Your task to perform on an android device: toggle notifications settings in the gmail app Image 0: 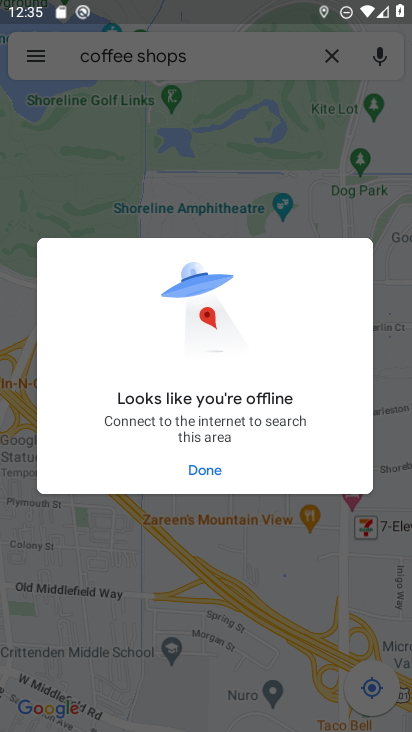
Step 0: press home button
Your task to perform on an android device: toggle notifications settings in the gmail app Image 1: 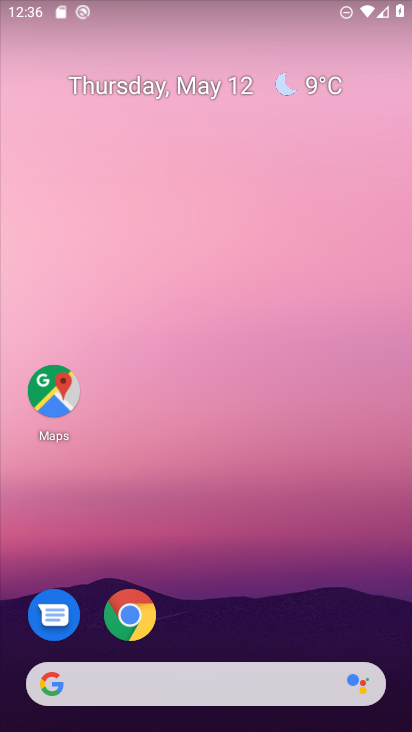
Step 1: drag from (270, 592) to (258, 118)
Your task to perform on an android device: toggle notifications settings in the gmail app Image 2: 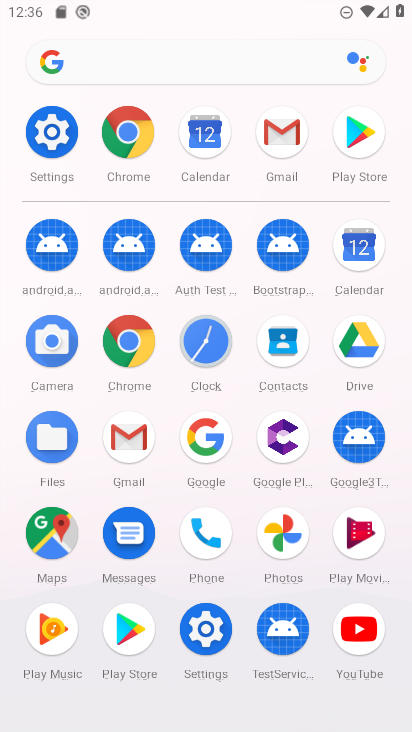
Step 2: click (137, 431)
Your task to perform on an android device: toggle notifications settings in the gmail app Image 3: 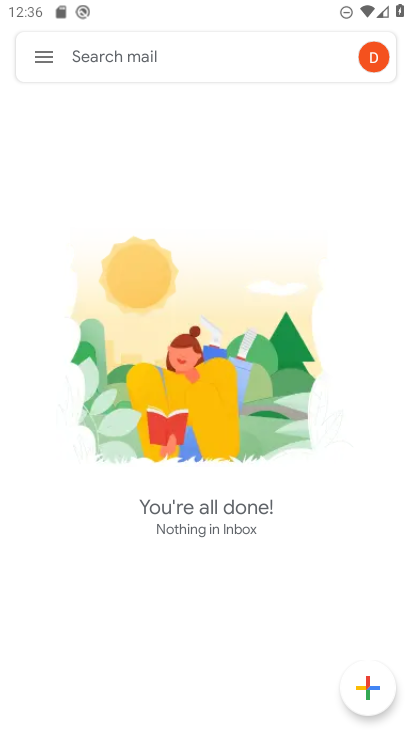
Step 3: click (51, 63)
Your task to perform on an android device: toggle notifications settings in the gmail app Image 4: 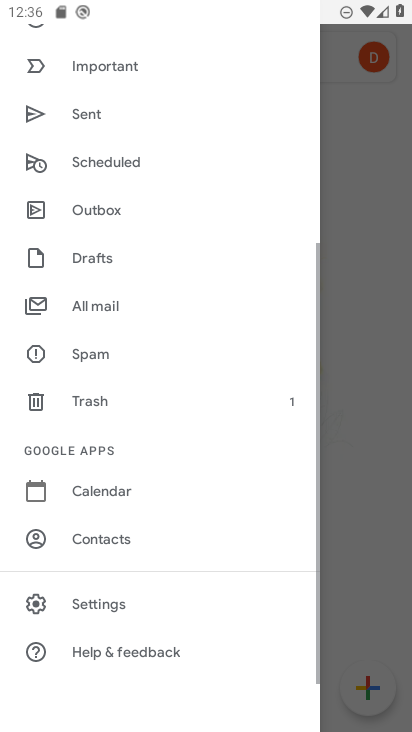
Step 4: click (138, 599)
Your task to perform on an android device: toggle notifications settings in the gmail app Image 5: 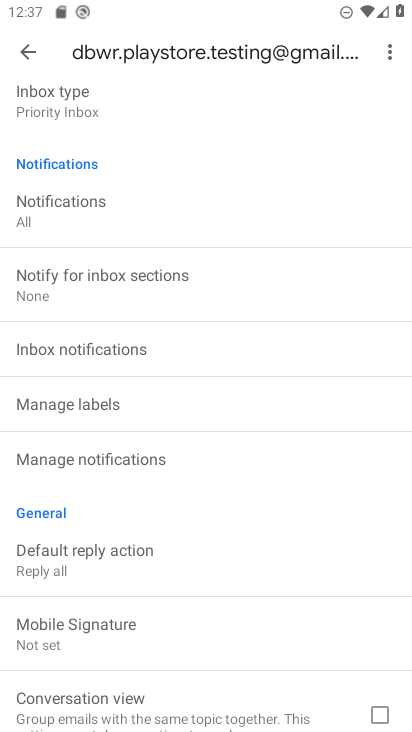
Step 5: drag from (234, 580) to (244, 530)
Your task to perform on an android device: toggle notifications settings in the gmail app Image 6: 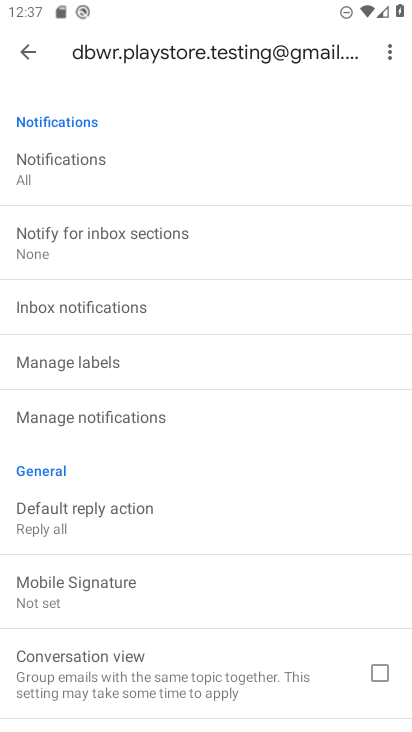
Step 6: click (116, 425)
Your task to perform on an android device: toggle notifications settings in the gmail app Image 7: 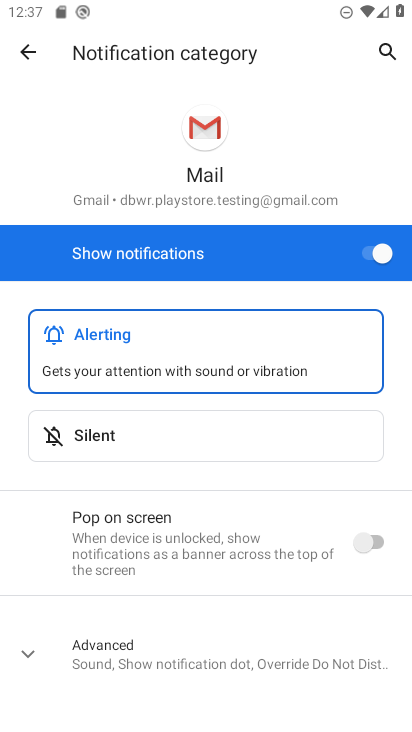
Step 7: click (358, 249)
Your task to perform on an android device: toggle notifications settings in the gmail app Image 8: 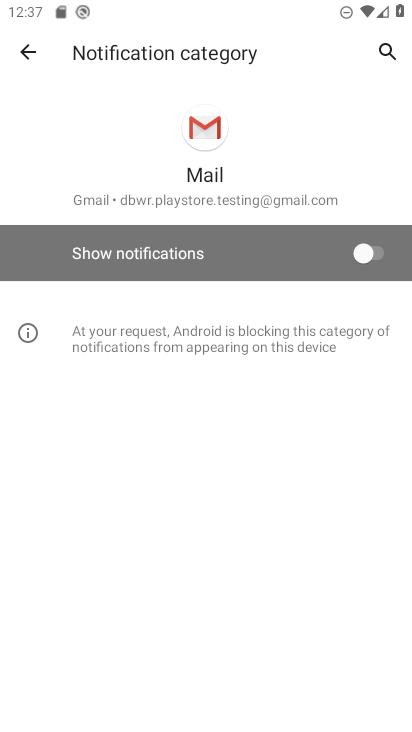
Step 8: task complete